Your task to perform on an android device: check google app version Image 0: 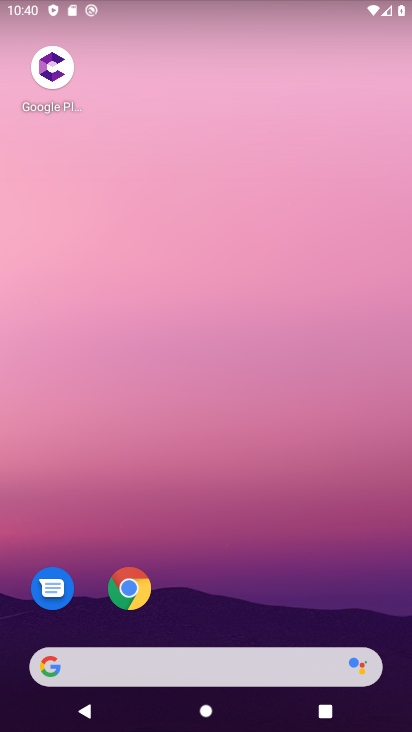
Step 0: drag from (210, 628) to (112, 46)
Your task to perform on an android device: check google app version Image 1: 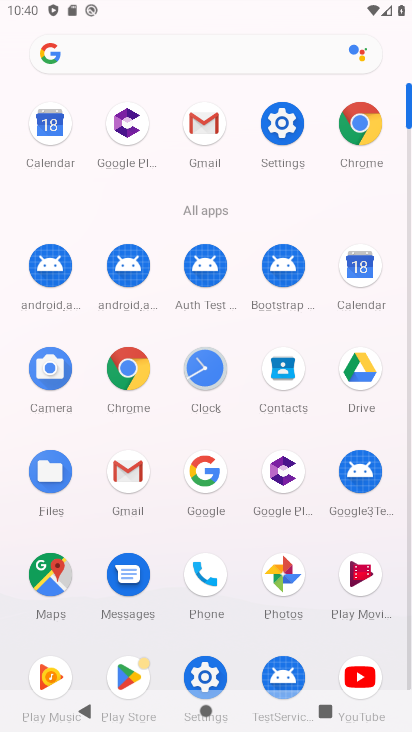
Step 1: click (200, 486)
Your task to perform on an android device: check google app version Image 2: 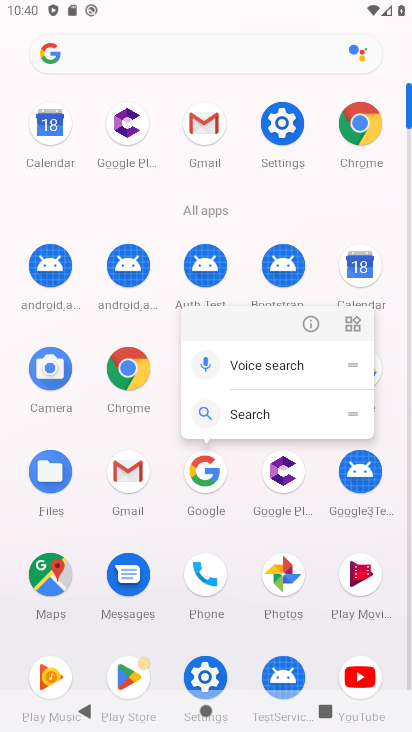
Step 2: click (309, 322)
Your task to perform on an android device: check google app version Image 3: 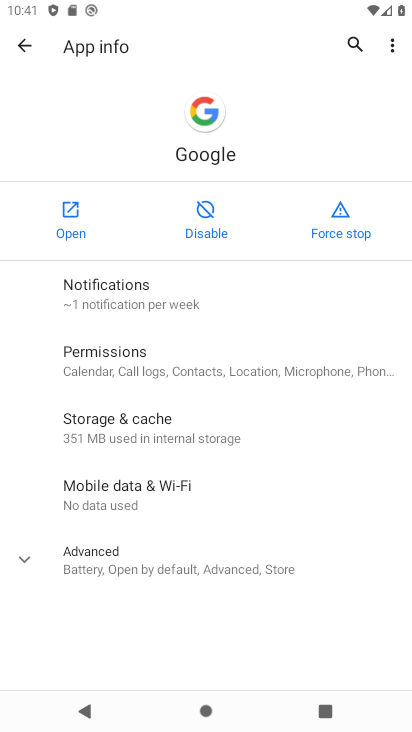
Step 3: click (142, 556)
Your task to perform on an android device: check google app version Image 4: 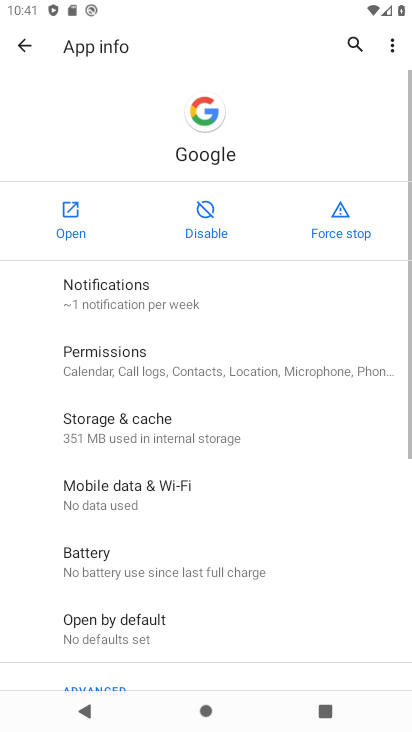
Step 4: task complete